Your task to perform on an android device: Go to Google Image 0: 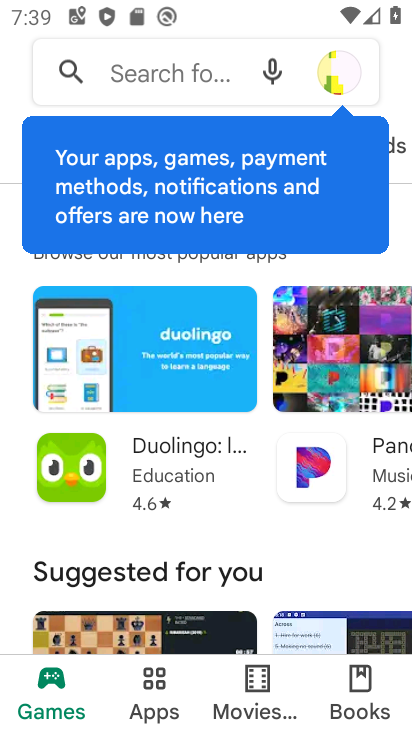
Step 0: press home button
Your task to perform on an android device: Go to Google Image 1: 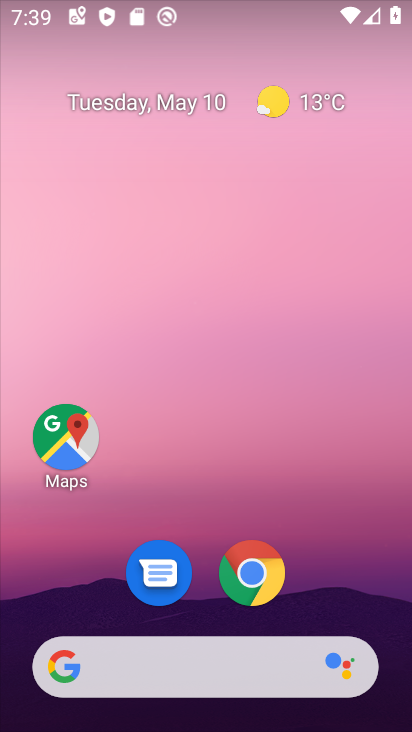
Step 1: drag from (330, 597) to (336, 32)
Your task to perform on an android device: Go to Google Image 2: 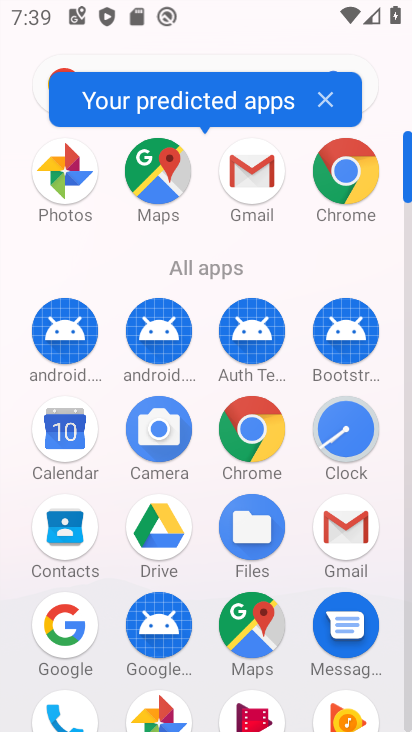
Step 2: click (68, 624)
Your task to perform on an android device: Go to Google Image 3: 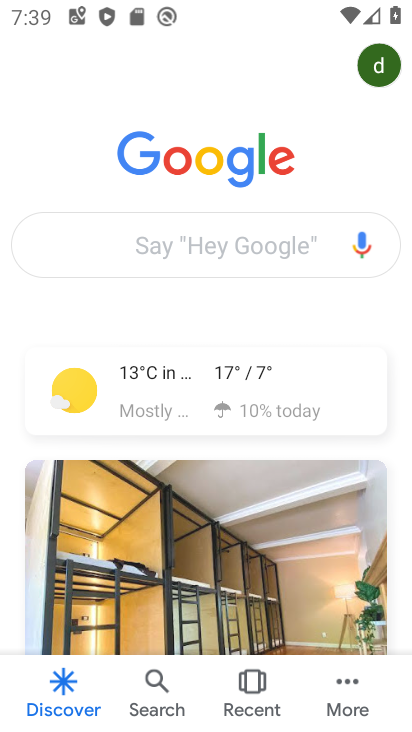
Step 3: task complete